Your task to perform on an android device: Open the Play Movies app and select the watchlist tab. Image 0: 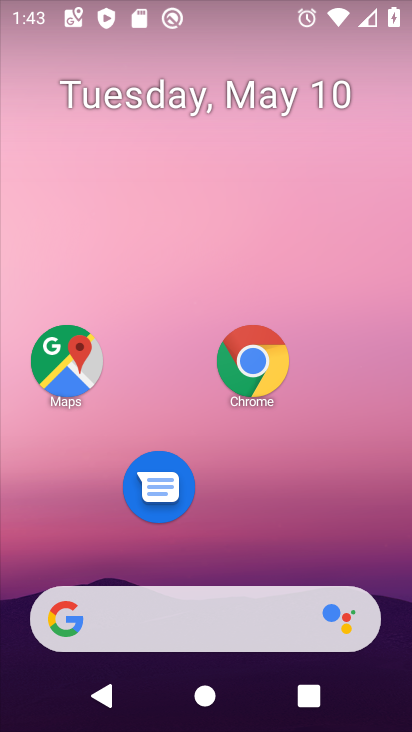
Step 0: drag from (335, 538) to (292, 247)
Your task to perform on an android device: Open the Play Movies app and select the watchlist tab. Image 1: 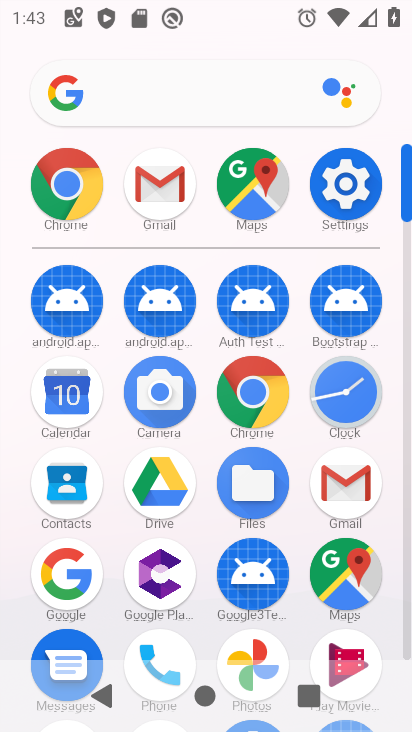
Step 1: click (364, 645)
Your task to perform on an android device: Open the Play Movies app and select the watchlist tab. Image 2: 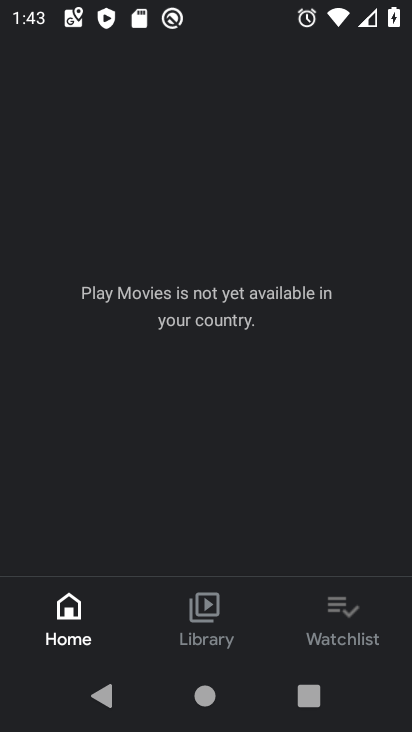
Step 2: click (372, 624)
Your task to perform on an android device: Open the Play Movies app and select the watchlist tab. Image 3: 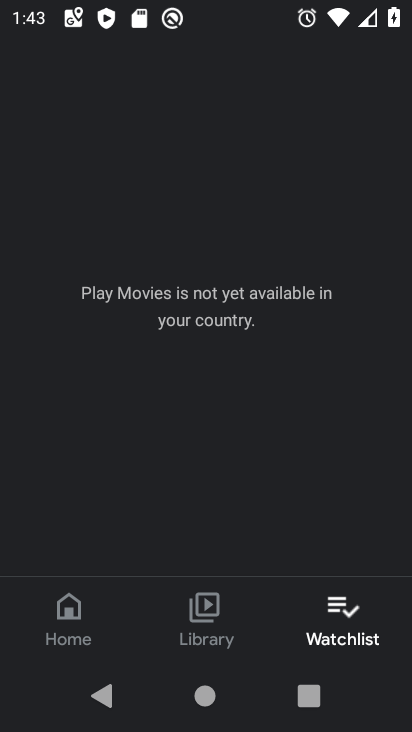
Step 3: task complete